Your task to perform on an android device: turn off wifi Image 0: 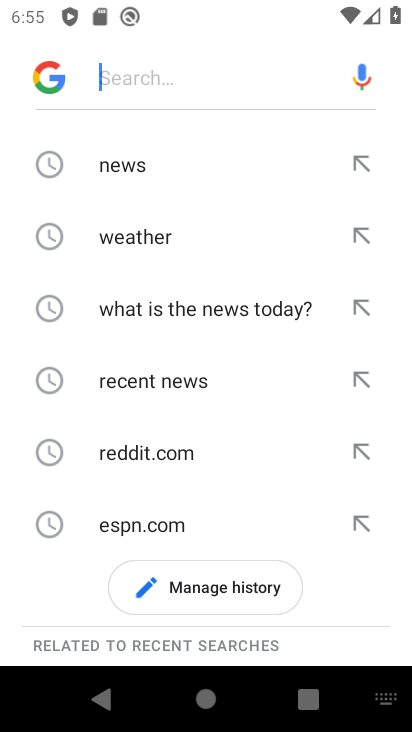
Step 0: press home button
Your task to perform on an android device: turn off wifi Image 1: 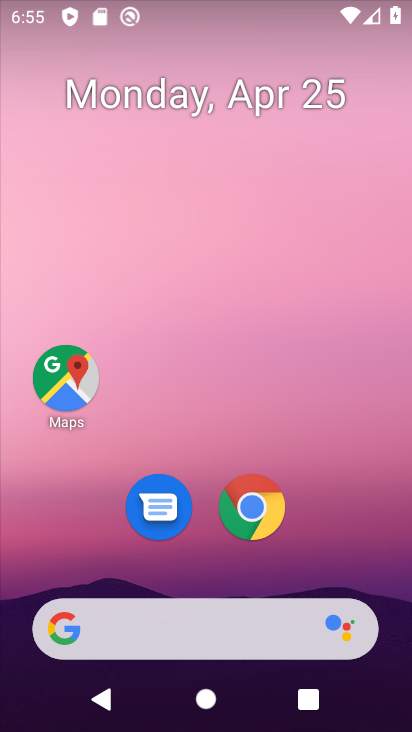
Step 1: drag from (354, 513) to (392, 296)
Your task to perform on an android device: turn off wifi Image 2: 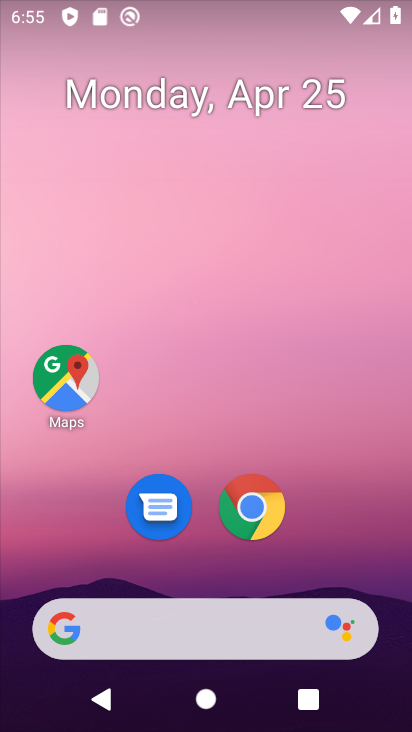
Step 2: drag from (306, 8) to (315, 713)
Your task to perform on an android device: turn off wifi Image 3: 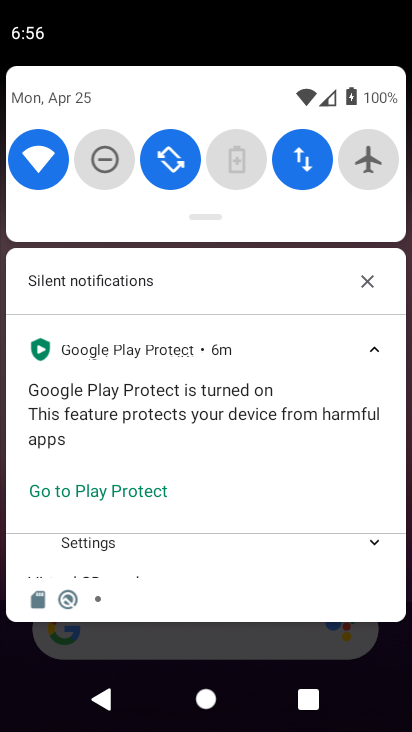
Step 3: click (25, 158)
Your task to perform on an android device: turn off wifi Image 4: 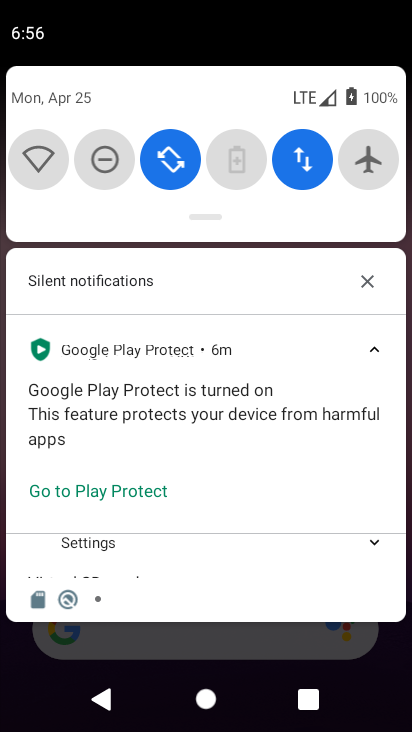
Step 4: task complete